Your task to perform on an android device: change text size in settings app Image 0: 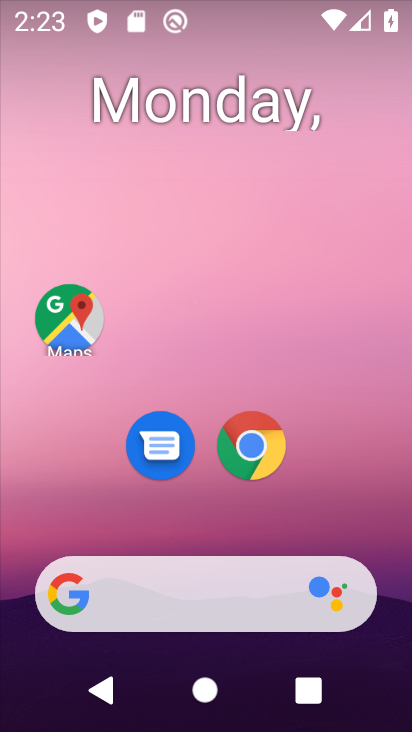
Step 0: drag from (195, 537) to (246, 47)
Your task to perform on an android device: change text size in settings app Image 1: 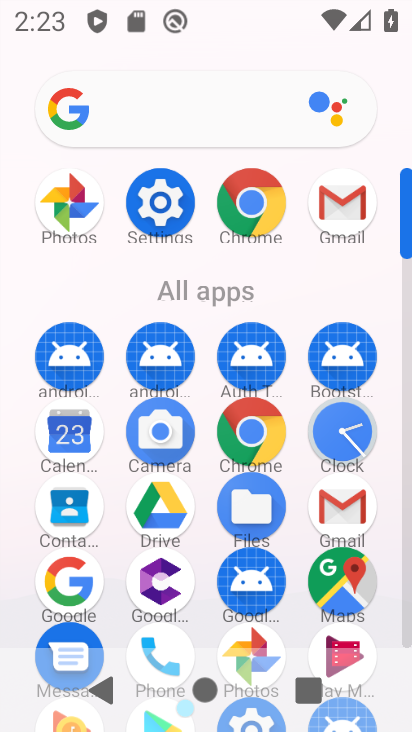
Step 1: click (129, 186)
Your task to perform on an android device: change text size in settings app Image 2: 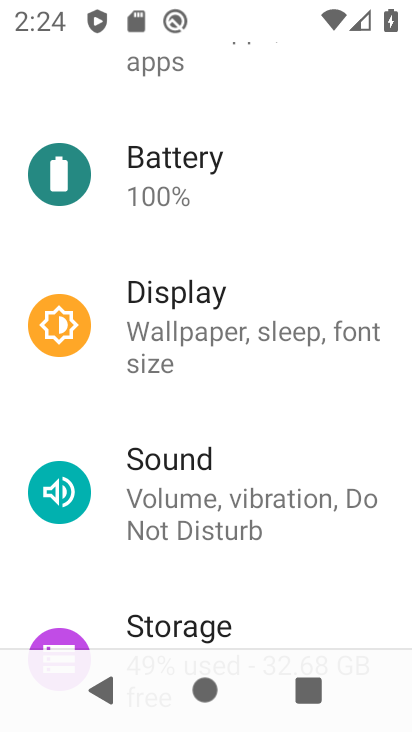
Step 2: drag from (51, 597) to (136, 146)
Your task to perform on an android device: change text size in settings app Image 3: 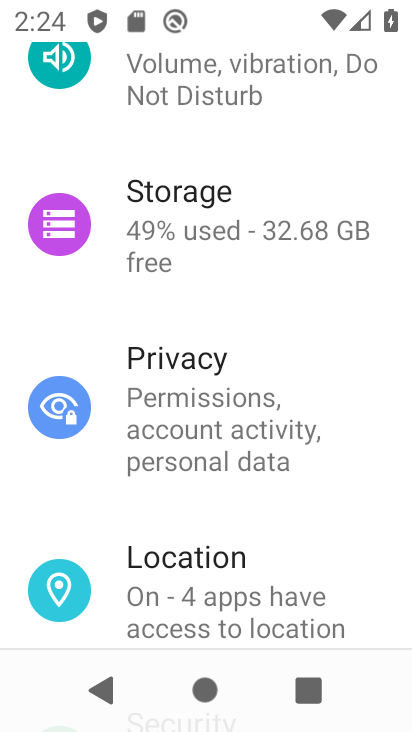
Step 3: drag from (136, 146) to (240, 660)
Your task to perform on an android device: change text size in settings app Image 4: 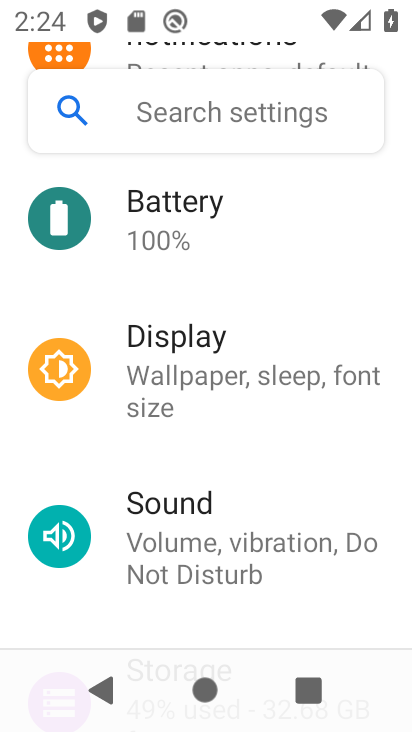
Step 4: click (205, 392)
Your task to perform on an android device: change text size in settings app Image 5: 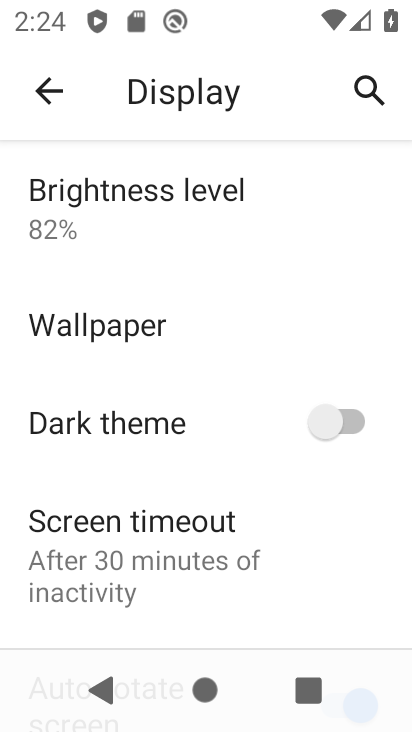
Step 5: drag from (111, 499) to (172, 13)
Your task to perform on an android device: change text size in settings app Image 6: 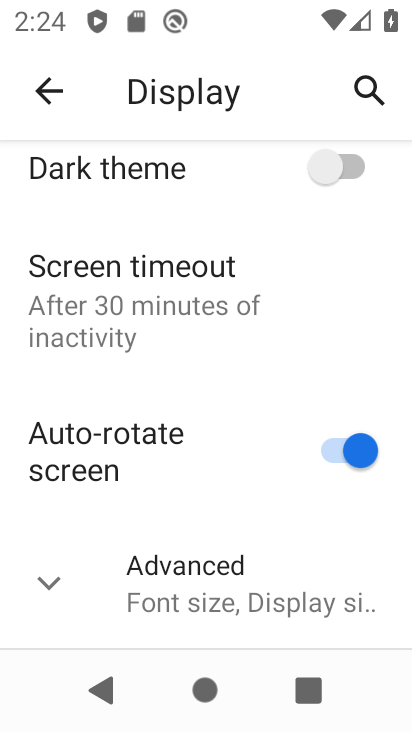
Step 6: click (214, 607)
Your task to perform on an android device: change text size in settings app Image 7: 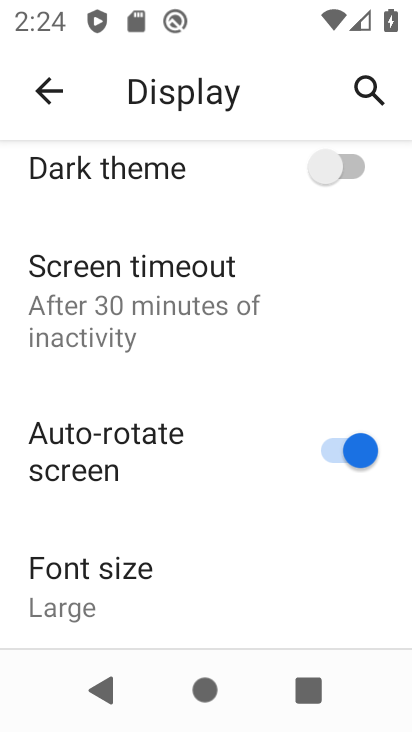
Step 7: click (214, 607)
Your task to perform on an android device: change text size in settings app Image 8: 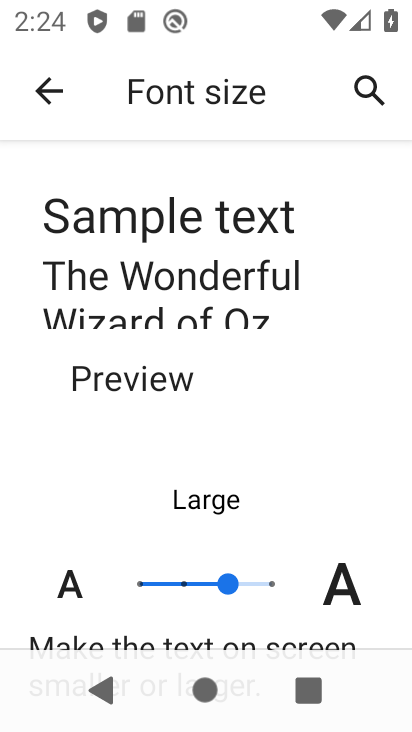
Step 8: click (139, 583)
Your task to perform on an android device: change text size in settings app Image 9: 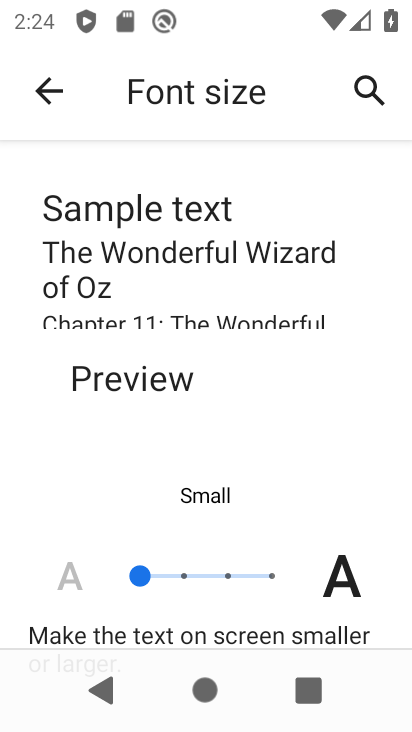
Step 9: task complete